Your task to perform on an android device: turn on location history Image 0: 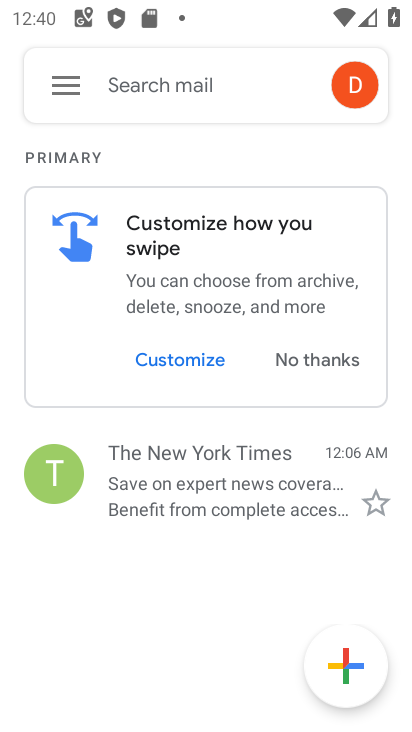
Step 0: press home button
Your task to perform on an android device: turn on location history Image 1: 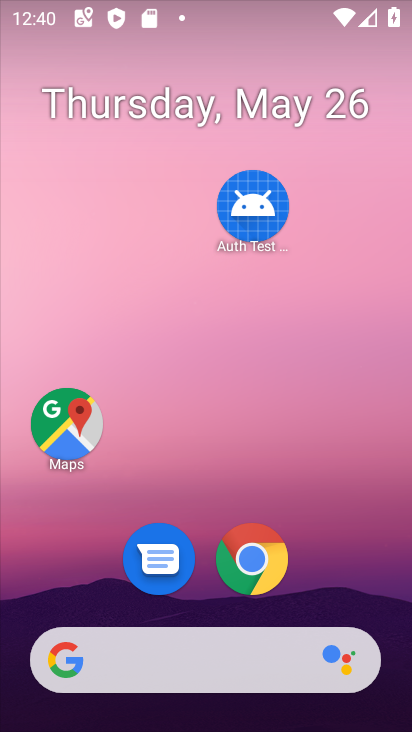
Step 1: drag from (348, 599) to (302, 161)
Your task to perform on an android device: turn on location history Image 2: 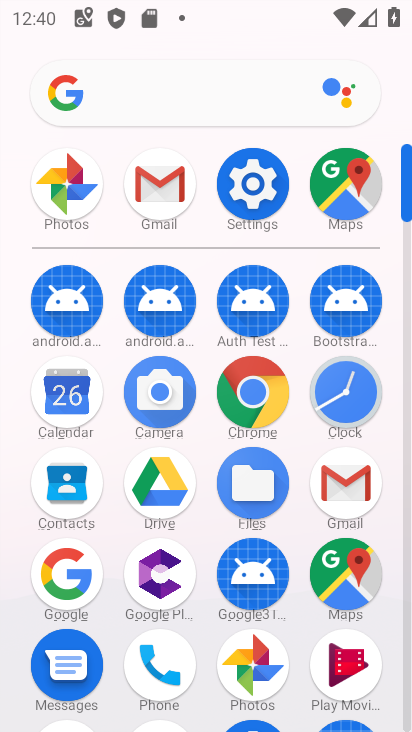
Step 2: click (242, 185)
Your task to perform on an android device: turn on location history Image 3: 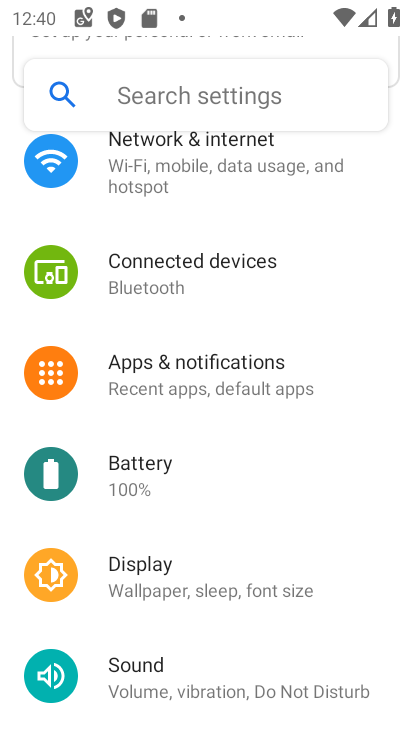
Step 3: drag from (271, 636) to (254, 240)
Your task to perform on an android device: turn on location history Image 4: 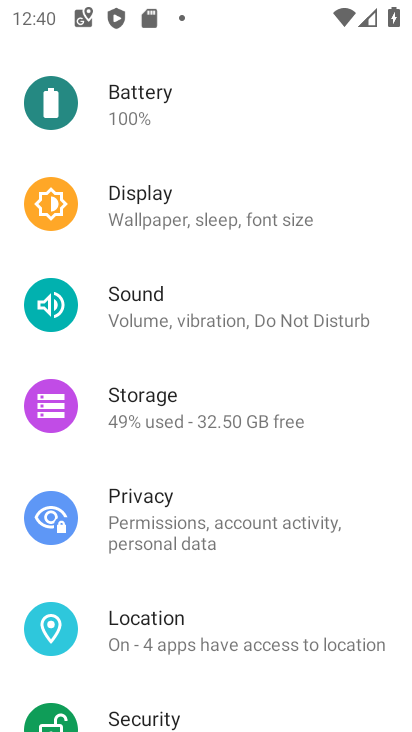
Step 4: click (257, 645)
Your task to perform on an android device: turn on location history Image 5: 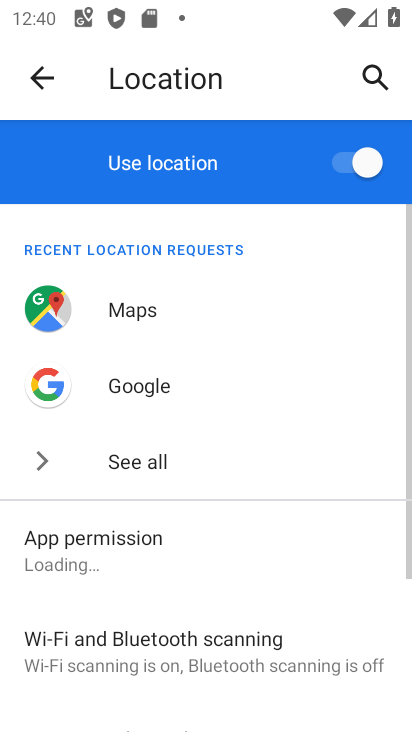
Step 5: drag from (271, 638) to (269, 345)
Your task to perform on an android device: turn on location history Image 6: 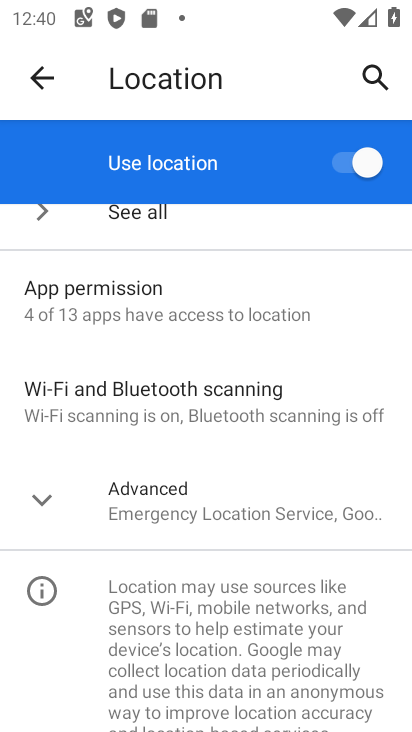
Step 6: click (237, 502)
Your task to perform on an android device: turn on location history Image 7: 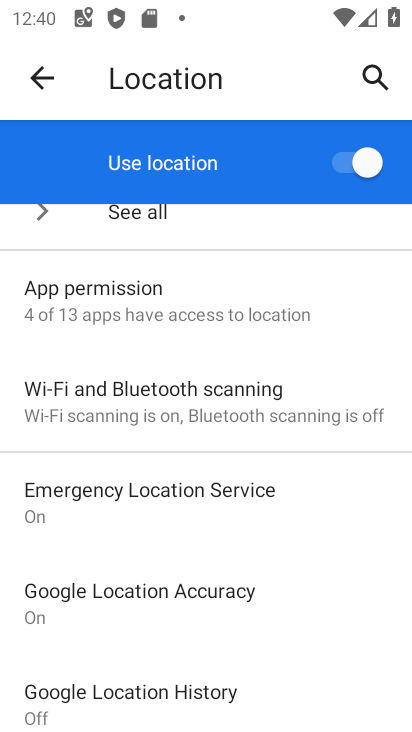
Step 7: click (246, 689)
Your task to perform on an android device: turn on location history Image 8: 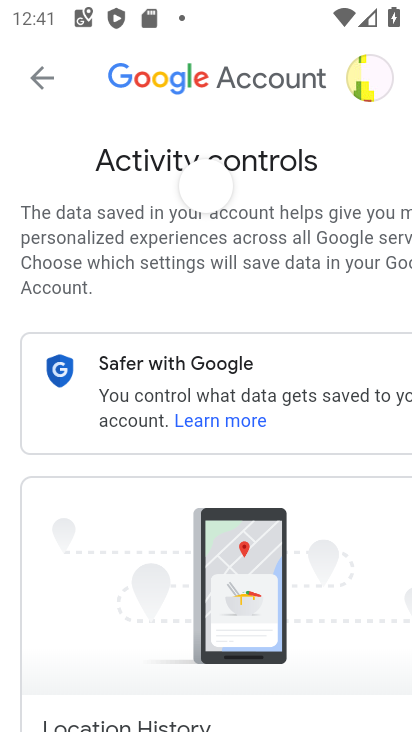
Step 8: task complete